Your task to perform on an android device: Go to notification settings Image 0: 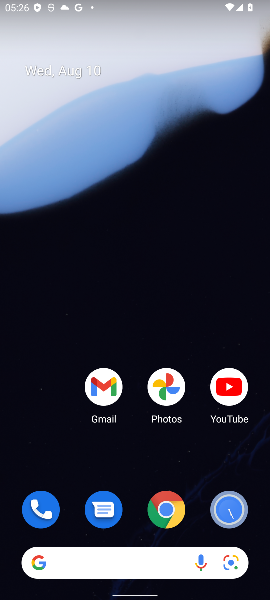
Step 0: drag from (139, 480) to (223, 99)
Your task to perform on an android device: Go to notification settings Image 1: 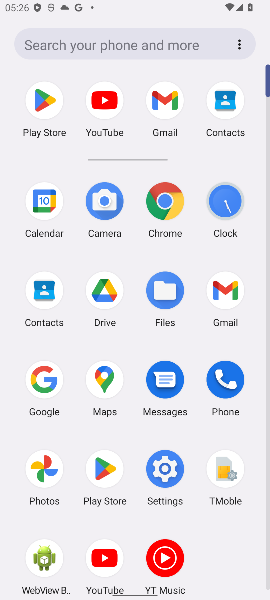
Step 1: click (178, 475)
Your task to perform on an android device: Go to notification settings Image 2: 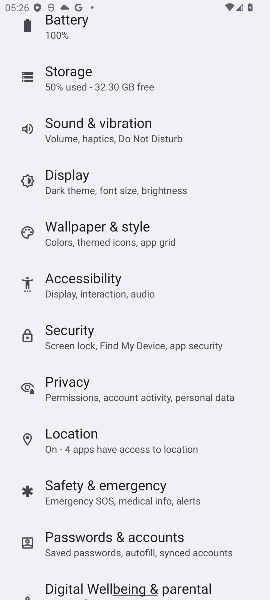
Step 2: drag from (184, 62) to (51, 425)
Your task to perform on an android device: Go to notification settings Image 3: 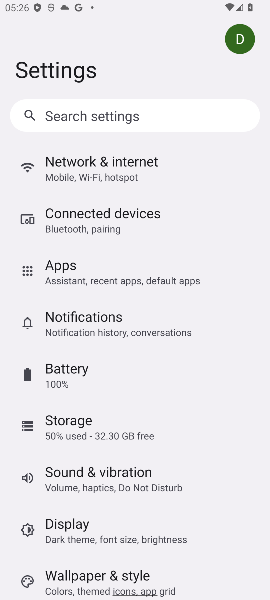
Step 3: click (106, 314)
Your task to perform on an android device: Go to notification settings Image 4: 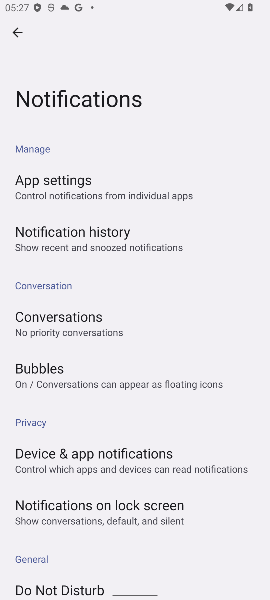
Step 4: task complete